Your task to perform on an android device: Go to Yahoo.com Image 0: 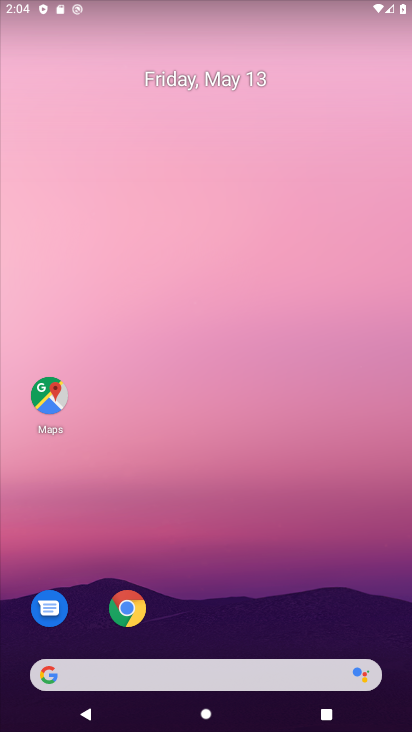
Step 0: click (130, 599)
Your task to perform on an android device: Go to Yahoo.com Image 1: 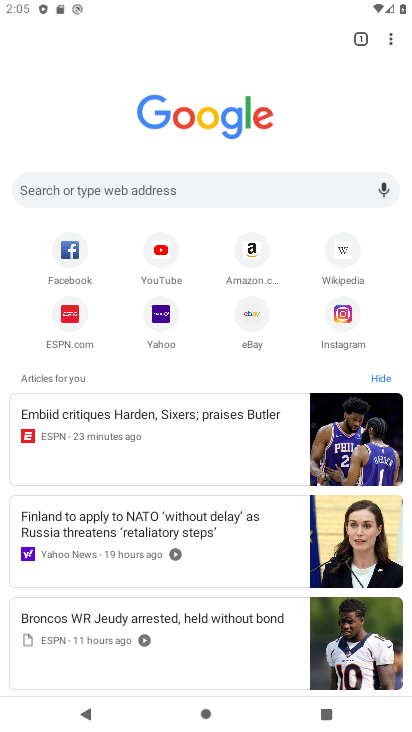
Step 1: click (154, 317)
Your task to perform on an android device: Go to Yahoo.com Image 2: 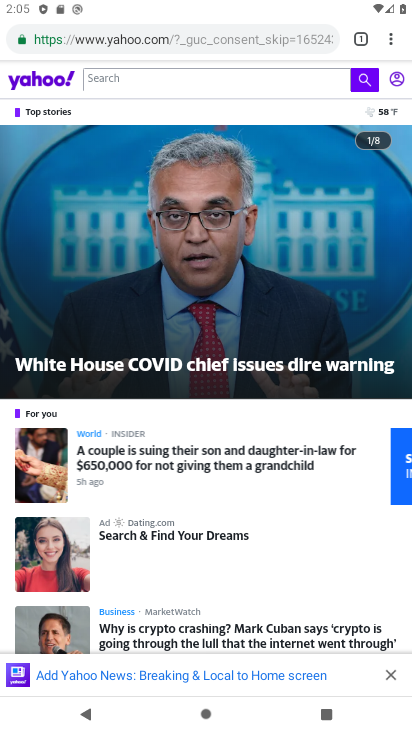
Step 2: task complete